Your task to perform on an android device: Open location settings Image 0: 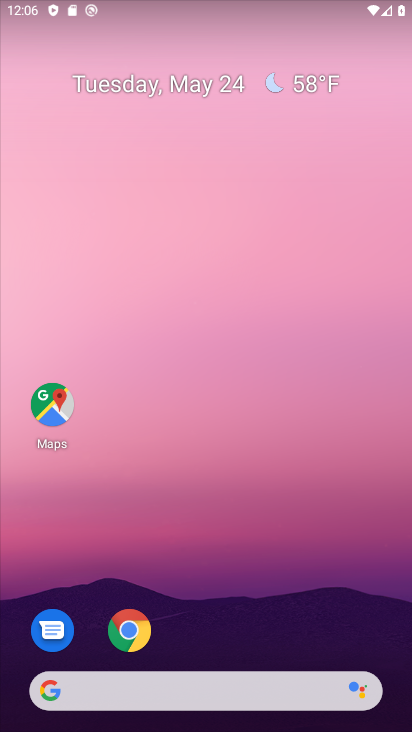
Step 0: drag from (247, 622) to (233, 122)
Your task to perform on an android device: Open location settings Image 1: 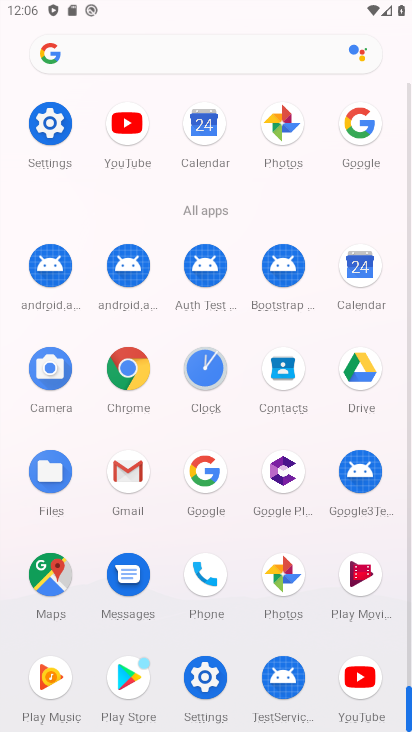
Step 1: click (47, 123)
Your task to perform on an android device: Open location settings Image 2: 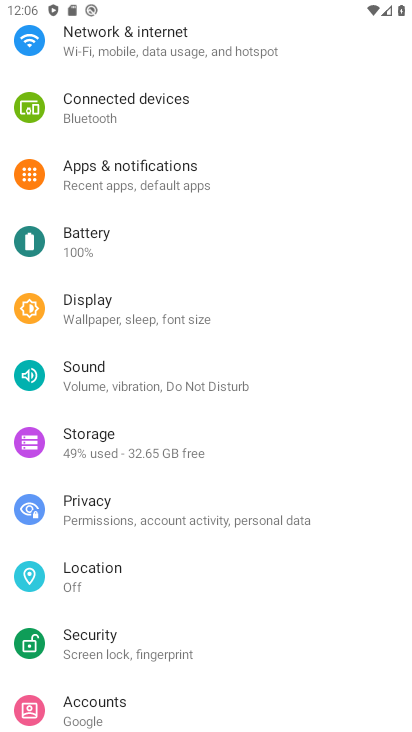
Step 2: click (88, 573)
Your task to perform on an android device: Open location settings Image 3: 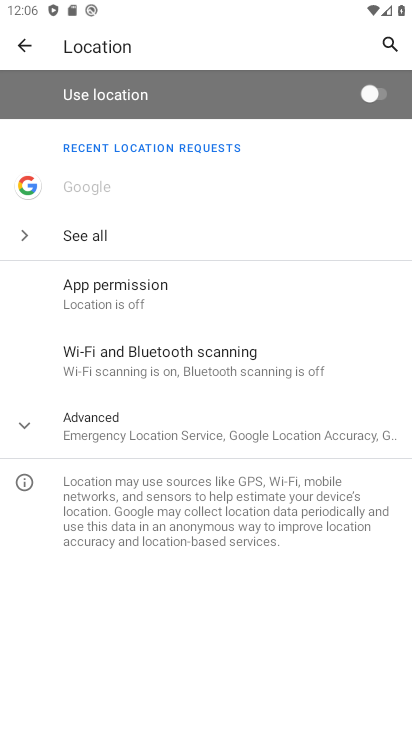
Step 3: task complete